Your task to perform on an android device: Search for Italian restaurants on Maps Image 0: 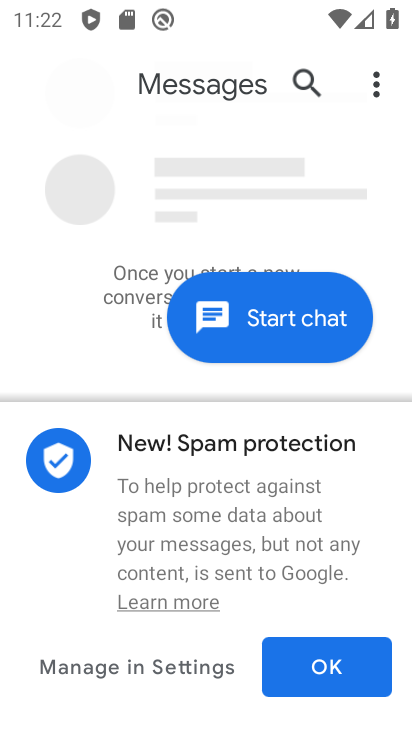
Step 0: drag from (326, 477) to (399, 446)
Your task to perform on an android device: Search for Italian restaurants on Maps Image 1: 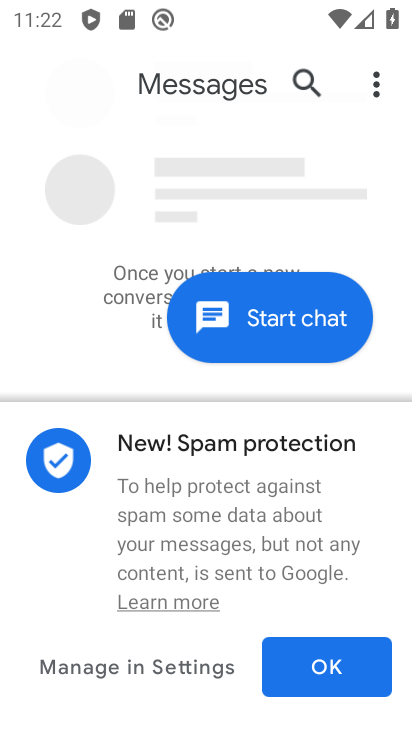
Step 1: press home button
Your task to perform on an android device: Search for Italian restaurants on Maps Image 2: 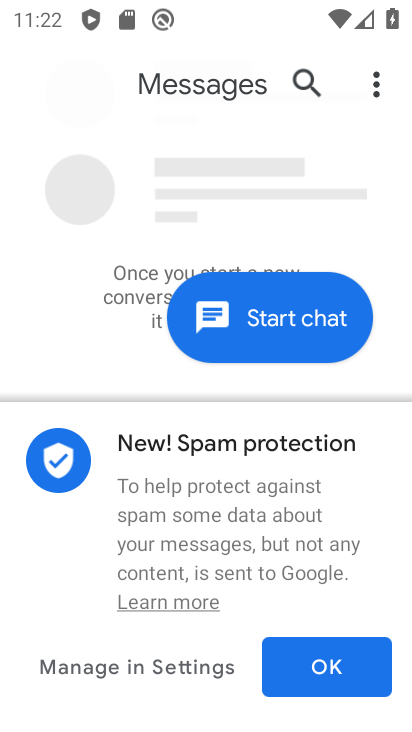
Step 2: press home button
Your task to perform on an android device: Search for Italian restaurants on Maps Image 3: 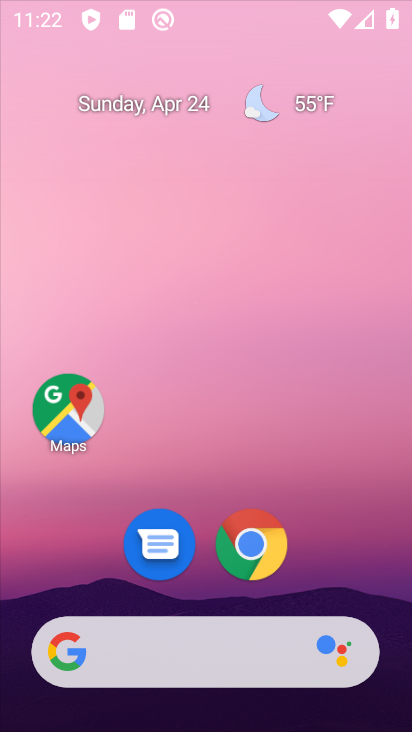
Step 3: drag from (399, 446) to (411, 287)
Your task to perform on an android device: Search for Italian restaurants on Maps Image 4: 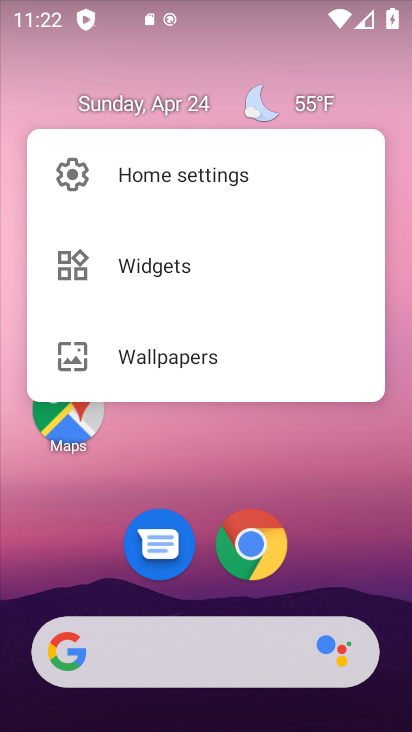
Step 4: click (66, 423)
Your task to perform on an android device: Search for Italian restaurants on Maps Image 5: 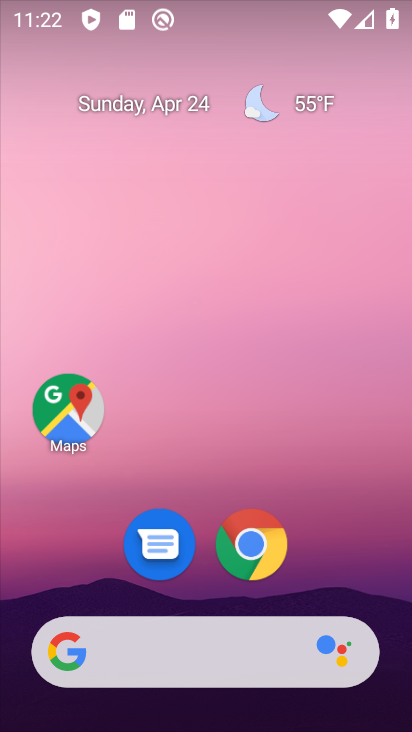
Step 5: click (72, 412)
Your task to perform on an android device: Search for Italian restaurants on Maps Image 6: 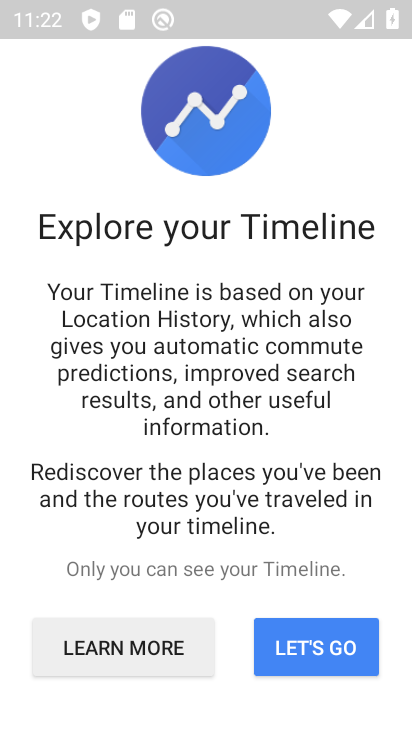
Step 6: press back button
Your task to perform on an android device: Search for Italian restaurants on Maps Image 7: 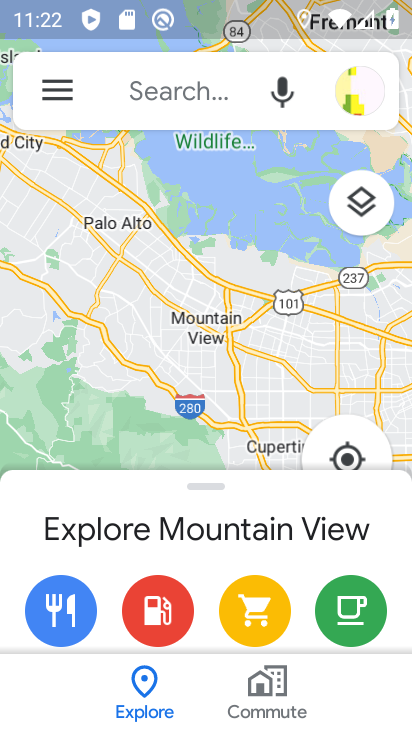
Step 7: click (158, 94)
Your task to perform on an android device: Search for Italian restaurants on Maps Image 8: 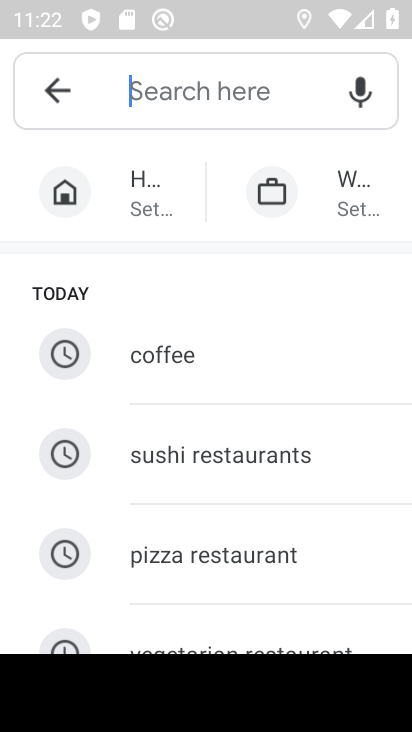
Step 8: drag from (305, 570) to (289, 234)
Your task to perform on an android device: Search for Italian restaurants on Maps Image 9: 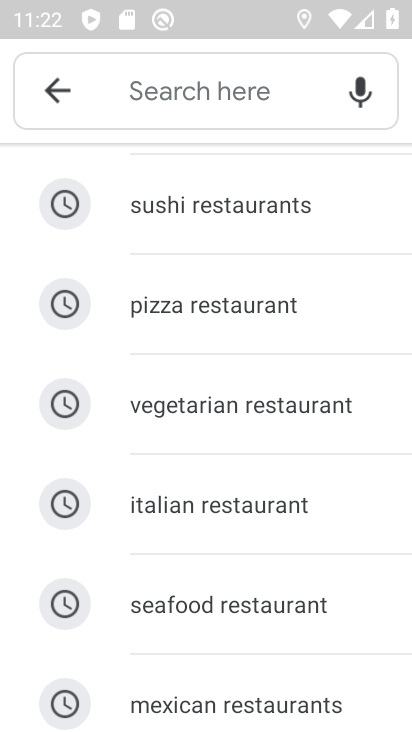
Step 9: click (208, 505)
Your task to perform on an android device: Search for Italian restaurants on Maps Image 10: 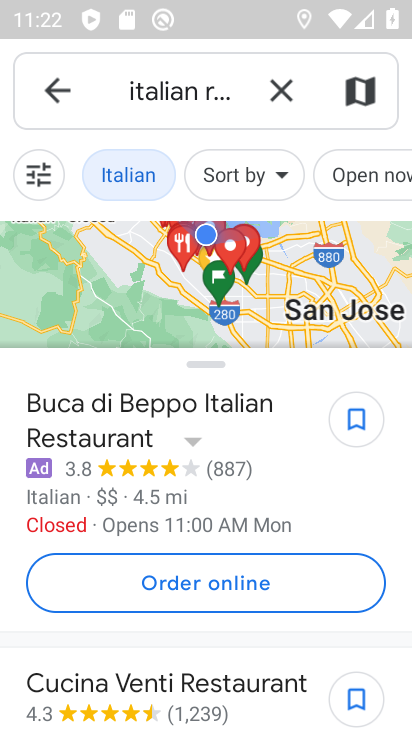
Step 10: task complete